Your task to perform on an android device: Go to Google Image 0: 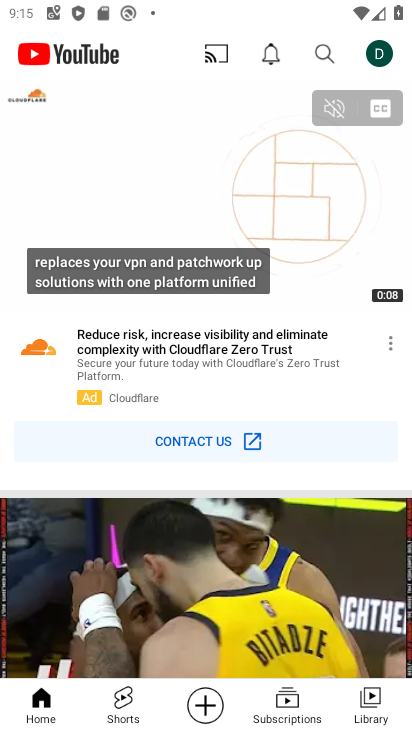
Step 0: press home button
Your task to perform on an android device: Go to Google Image 1: 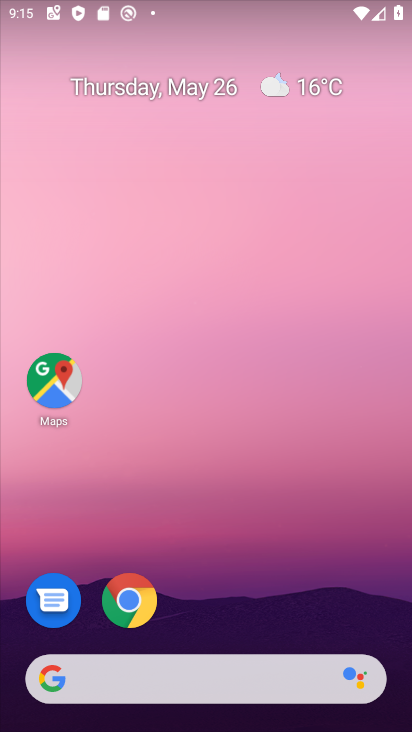
Step 1: click (215, 693)
Your task to perform on an android device: Go to Google Image 2: 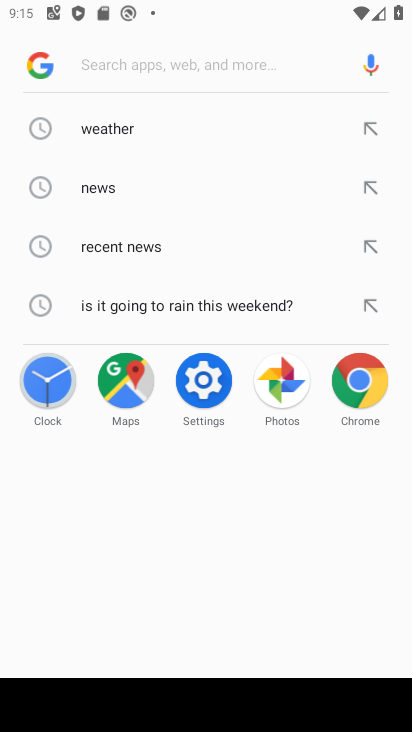
Step 2: task complete